Your task to perform on an android device: check storage Image 0: 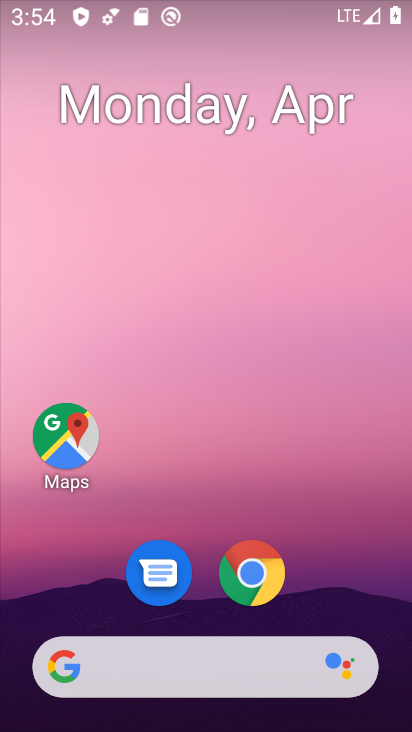
Step 0: drag from (353, 571) to (360, 91)
Your task to perform on an android device: check storage Image 1: 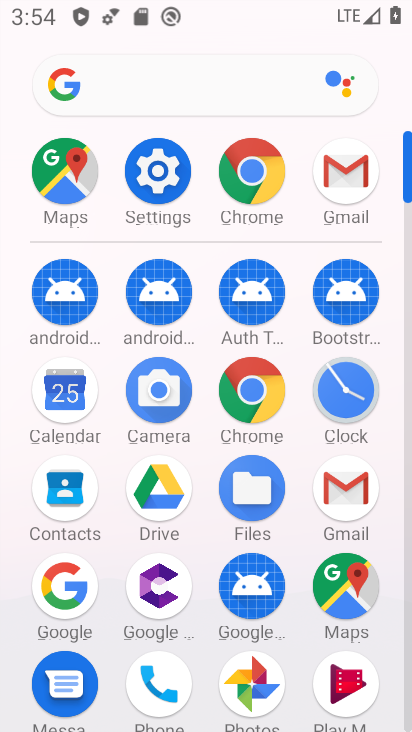
Step 1: click (169, 191)
Your task to perform on an android device: check storage Image 2: 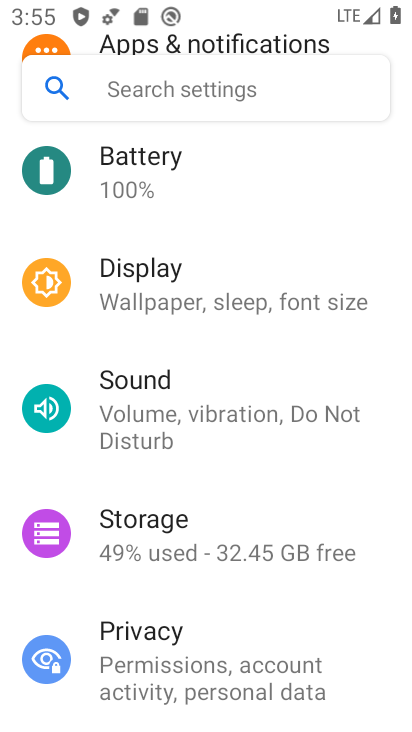
Step 2: drag from (257, 499) to (257, 306)
Your task to perform on an android device: check storage Image 3: 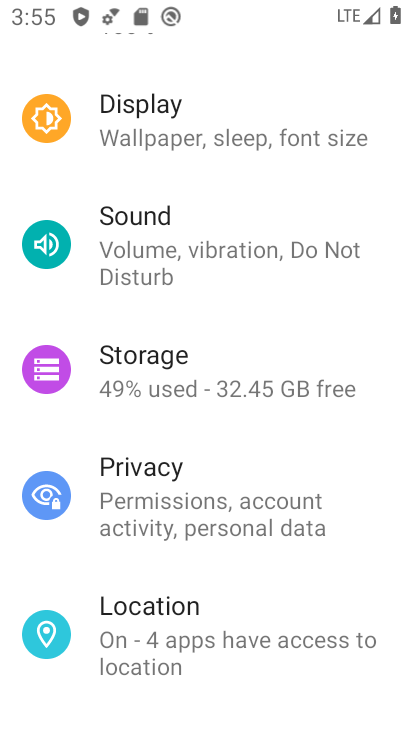
Step 3: drag from (355, 579) to (367, 364)
Your task to perform on an android device: check storage Image 4: 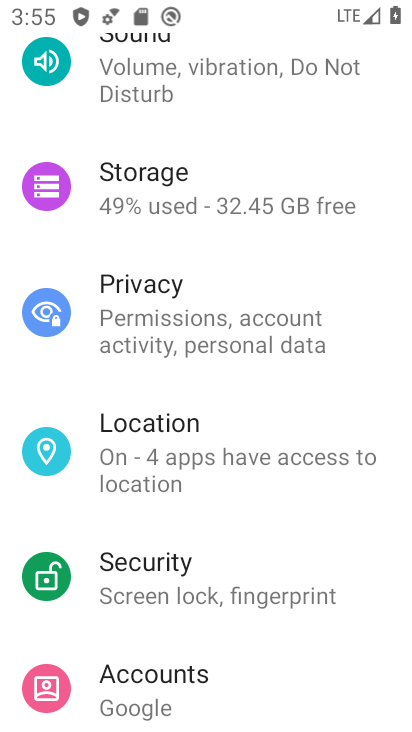
Step 4: drag from (337, 641) to (351, 438)
Your task to perform on an android device: check storage Image 5: 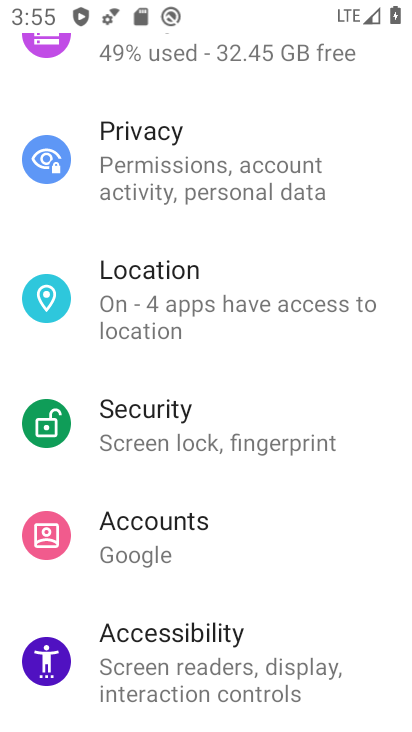
Step 5: drag from (350, 621) to (354, 423)
Your task to perform on an android device: check storage Image 6: 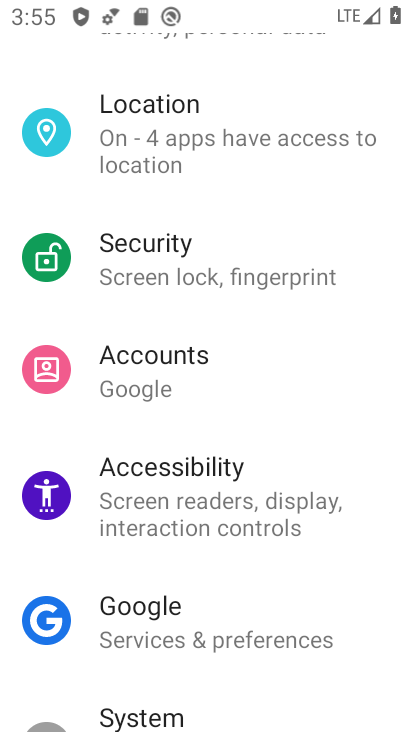
Step 6: drag from (334, 675) to (345, 438)
Your task to perform on an android device: check storage Image 7: 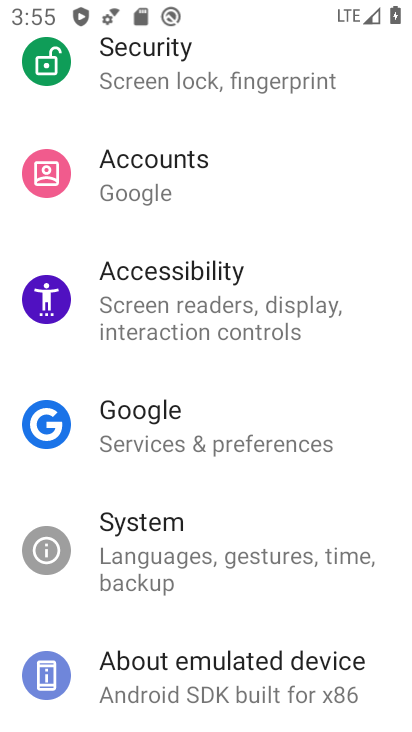
Step 7: drag from (357, 624) to (346, 348)
Your task to perform on an android device: check storage Image 8: 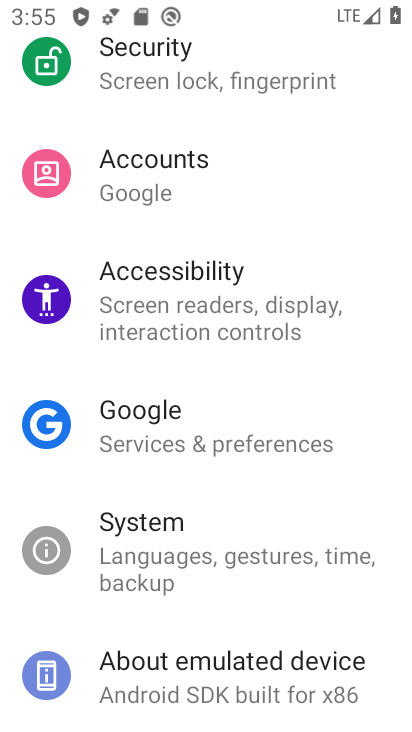
Step 8: drag from (368, 206) to (368, 487)
Your task to perform on an android device: check storage Image 9: 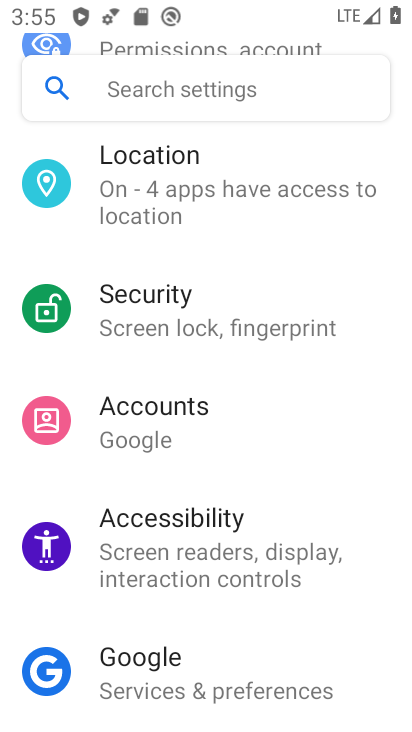
Step 9: drag from (366, 434) to (350, 549)
Your task to perform on an android device: check storage Image 10: 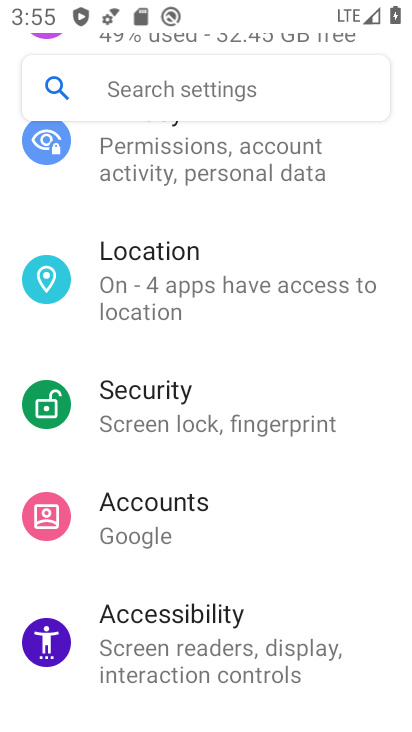
Step 10: drag from (334, 528) to (357, 207)
Your task to perform on an android device: check storage Image 11: 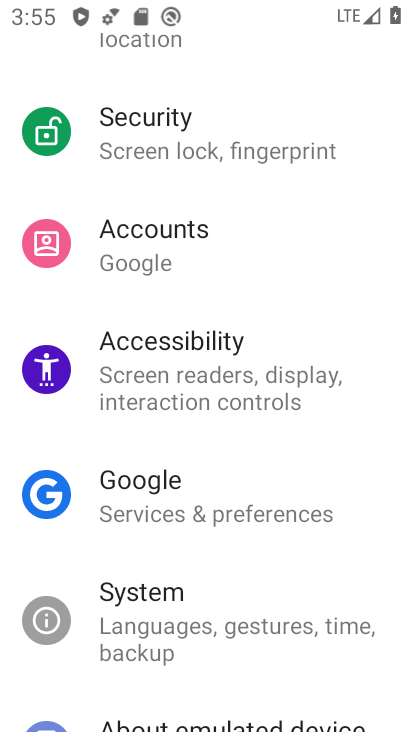
Step 11: drag from (370, 268) to (349, 596)
Your task to perform on an android device: check storage Image 12: 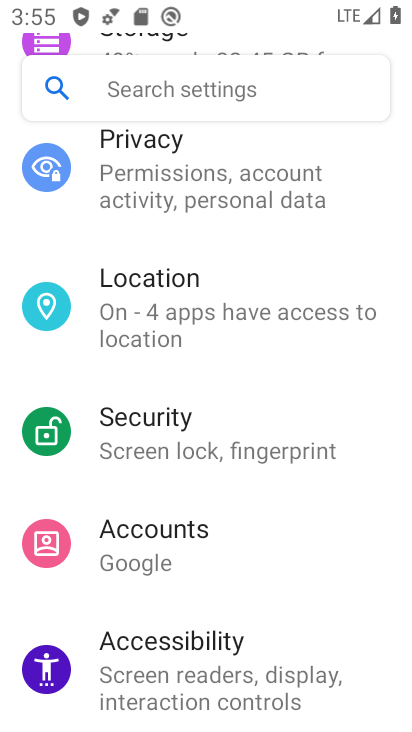
Step 12: drag from (370, 228) to (324, 536)
Your task to perform on an android device: check storage Image 13: 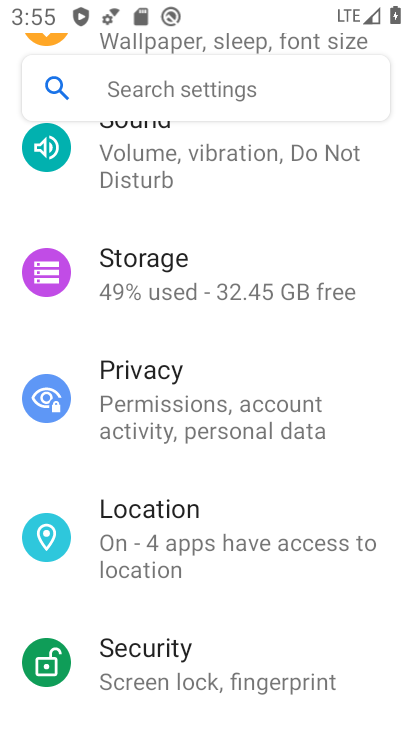
Step 13: click (230, 290)
Your task to perform on an android device: check storage Image 14: 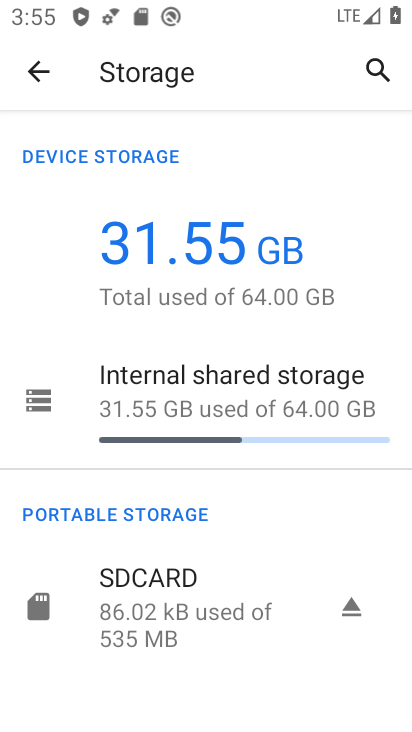
Step 14: task complete